Your task to perform on an android device: Open network settings Image 0: 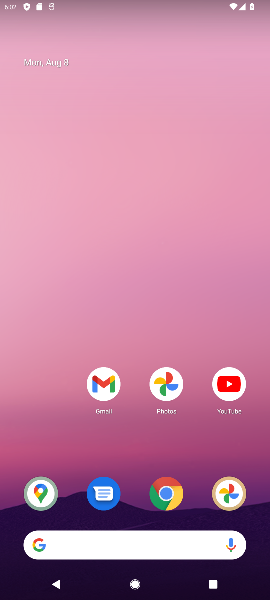
Step 0: click (115, 212)
Your task to perform on an android device: Open network settings Image 1: 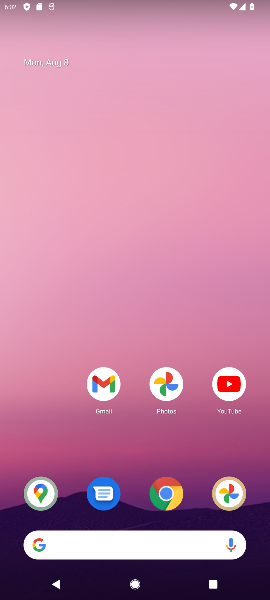
Step 1: drag from (148, 418) to (237, 34)
Your task to perform on an android device: Open network settings Image 2: 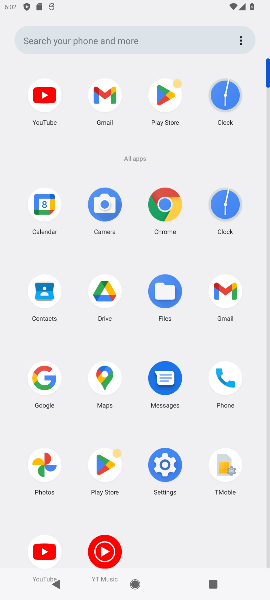
Step 2: click (164, 468)
Your task to perform on an android device: Open network settings Image 3: 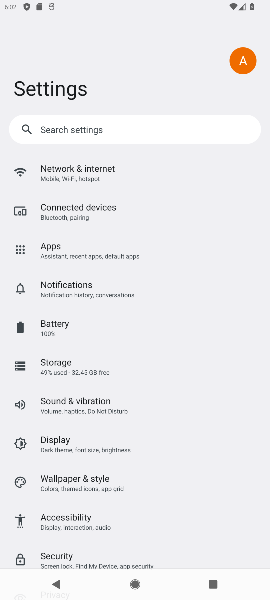
Step 3: click (73, 175)
Your task to perform on an android device: Open network settings Image 4: 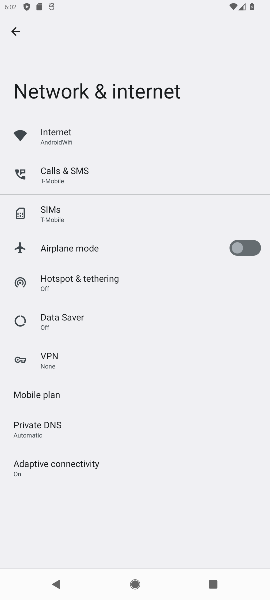
Step 4: task complete